Your task to perform on an android device: turn off picture-in-picture Image 0: 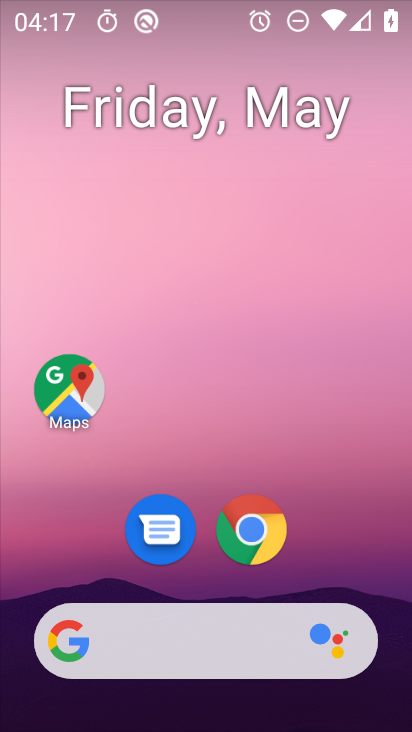
Step 0: click (253, 534)
Your task to perform on an android device: turn off picture-in-picture Image 1: 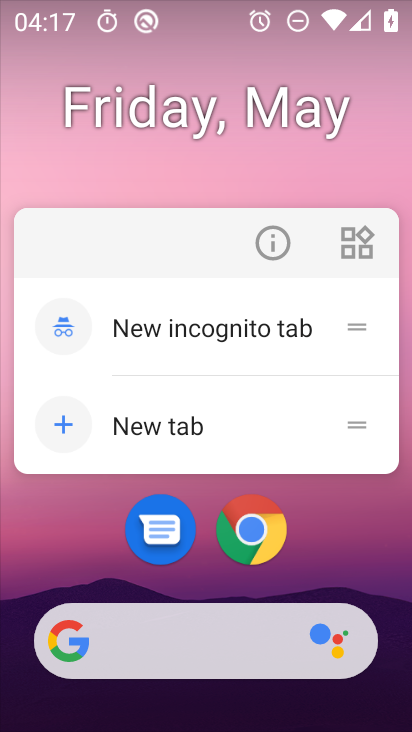
Step 1: click (272, 246)
Your task to perform on an android device: turn off picture-in-picture Image 2: 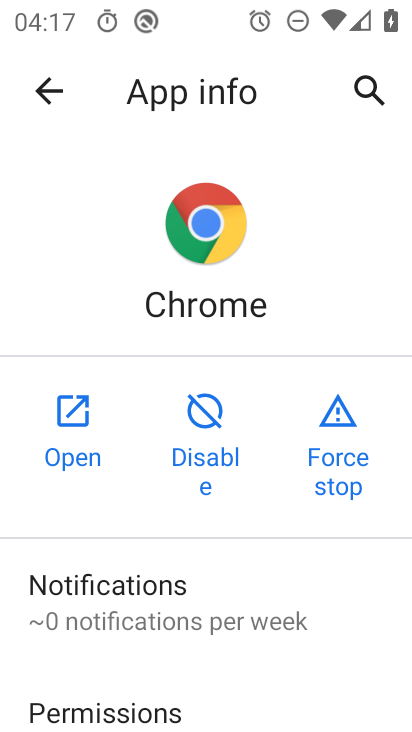
Step 2: drag from (280, 700) to (324, 200)
Your task to perform on an android device: turn off picture-in-picture Image 3: 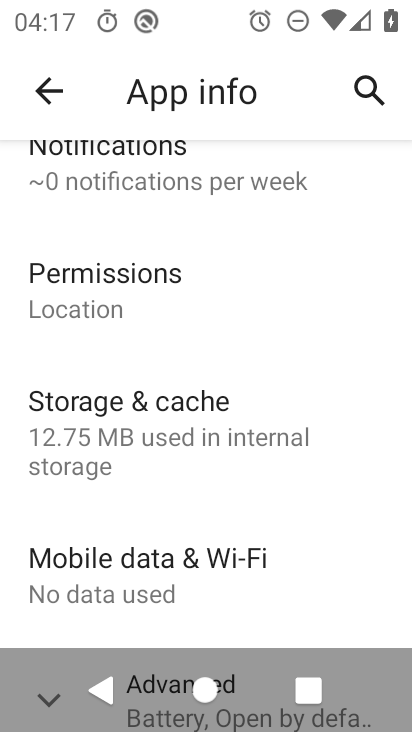
Step 3: drag from (287, 634) to (273, 289)
Your task to perform on an android device: turn off picture-in-picture Image 4: 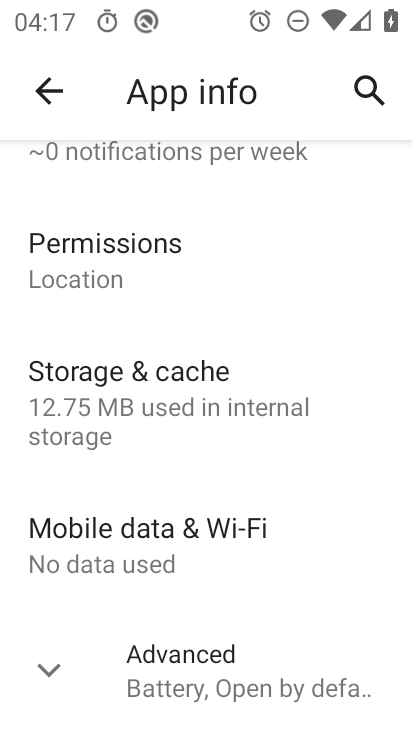
Step 4: click (74, 667)
Your task to perform on an android device: turn off picture-in-picture Image 5: 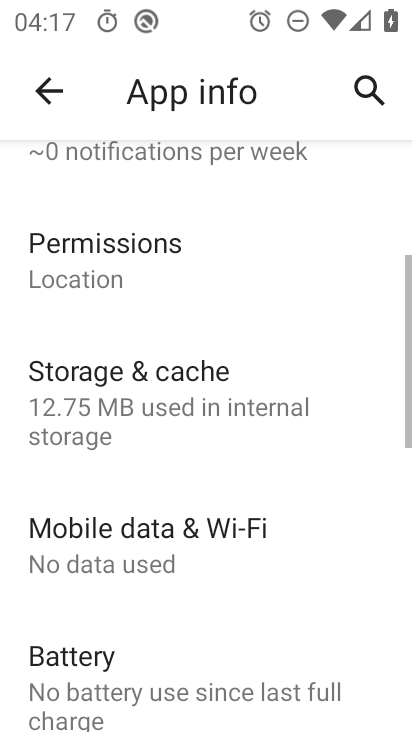
Step 5: drag from (304, 635) to (326, 283)
Your task to perform on an android device: turn off picture-in-picture Image 6: 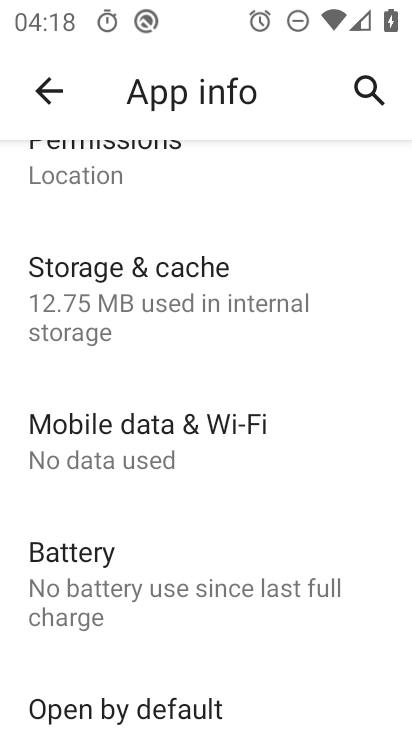
Step 6: drag from (268, 588) to (271, 435)
Your task to perform on an android device: turn off picture-in-picture Image 7: 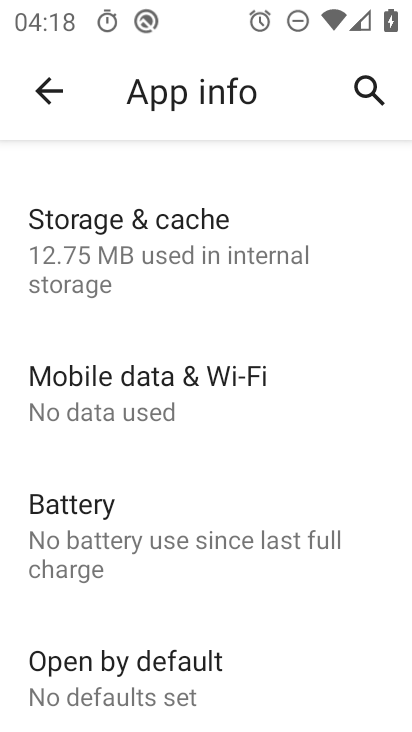
Step 7: drag from (283, 681) to (283, 328)
Your task to perform on an android device: turn off picture-in-picture Image 8: 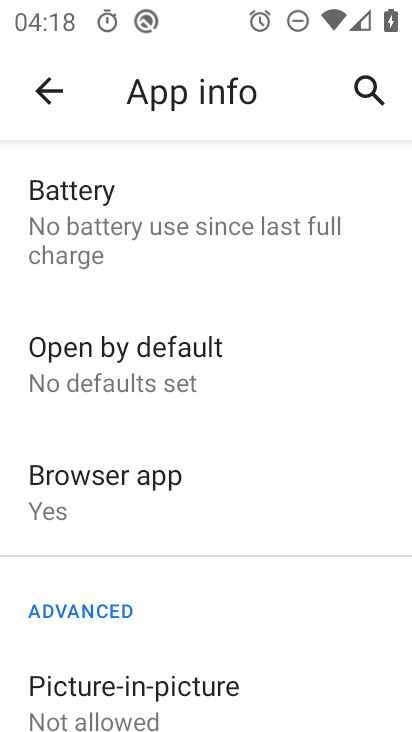
Step 8: click (143, 690)
Your task to perform on an android device: turn off picture-in-picture Image 9: 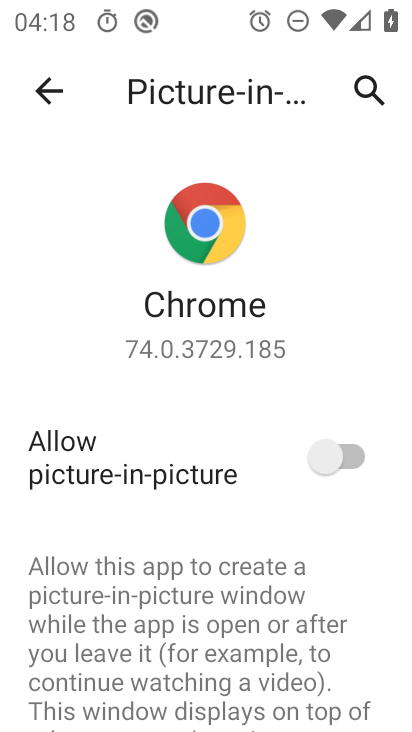
Step 9: task complete